Your task to perform on an android device: see creations saved in the google photos Image 0: 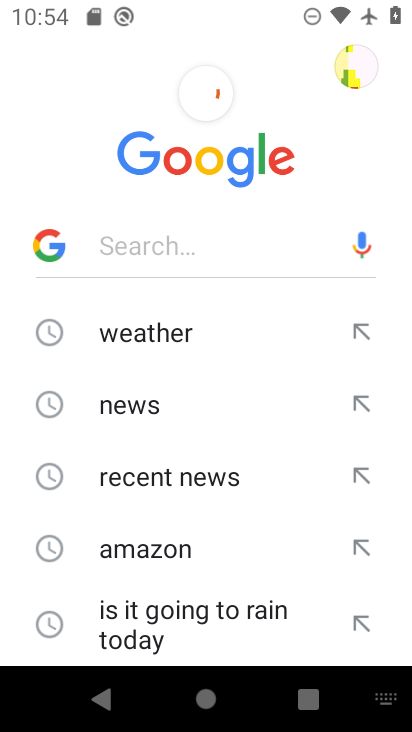
Step 0: press back button
Your task to perform on an android device: see creations saved in the google photos Image 1: 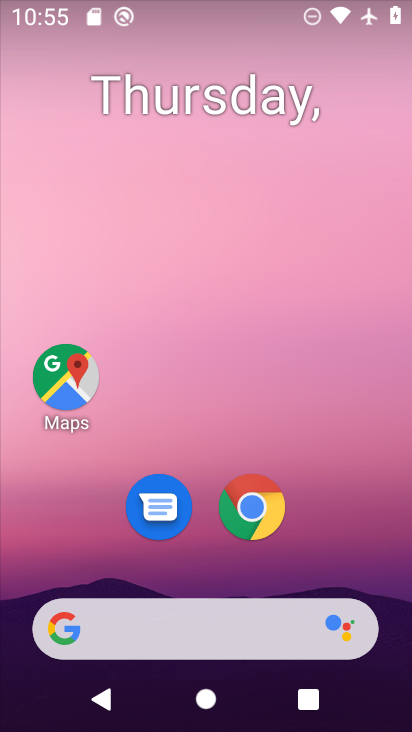
Step 1: drag from (319, 532) to (244, 11)
Your task to perform on an android device: see creations saved in the google photos Image 2: 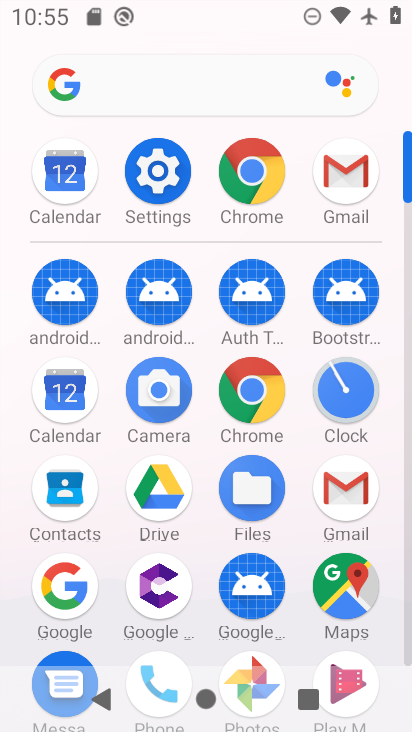
Step 2: drag from (15, 587) to (14, 256)
Your task to perform on an android device: see creations saved in the google photos Image 3: 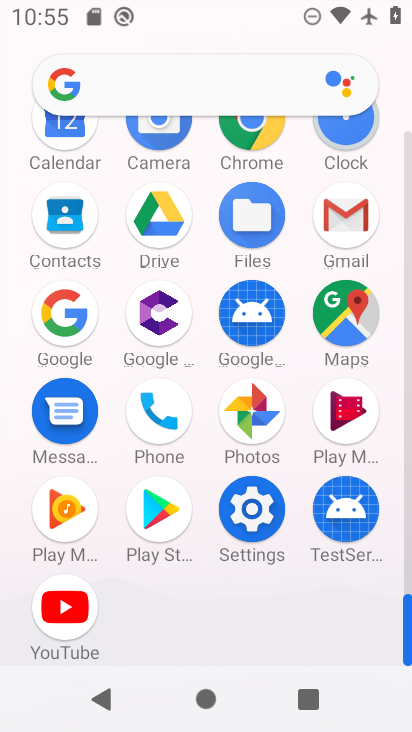
Step 3: click (254, 401)
Your task to perform on an android device: see creations saved in the google photos Image 4: 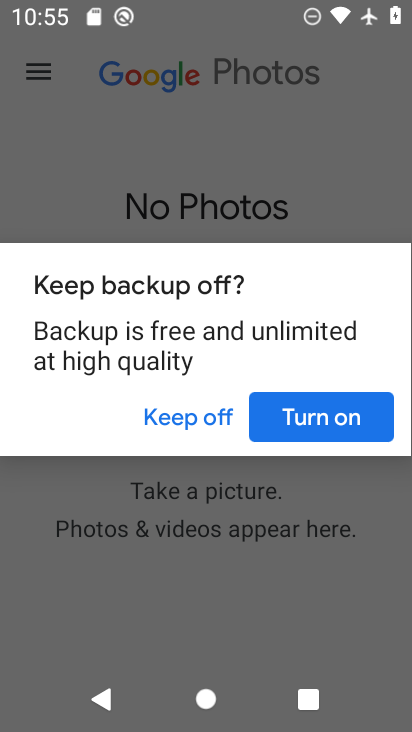
Step 4: click (283, 409)
Your task to perform on an android device: see creations saved in the google photos Image 5: 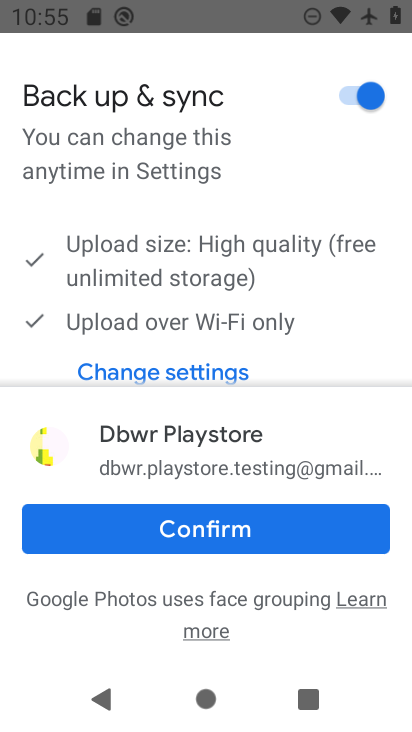
Step 5: click (223, 516)
Your task to perform on an android device: see creations saved in the google photos Image 6: 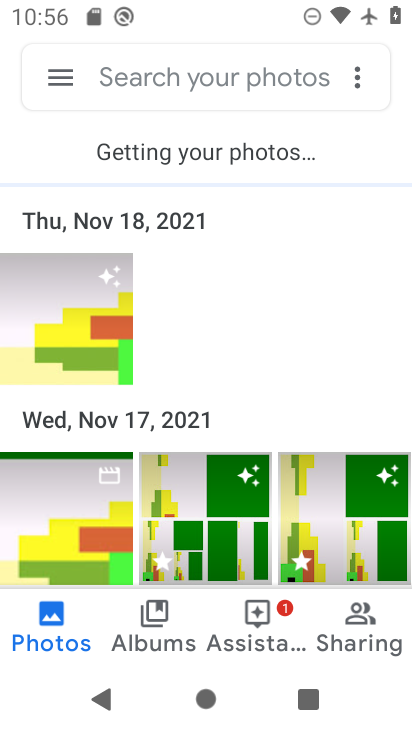
Step 6: task complete